Your task to perform on an android device: toggle wifi Image 0: 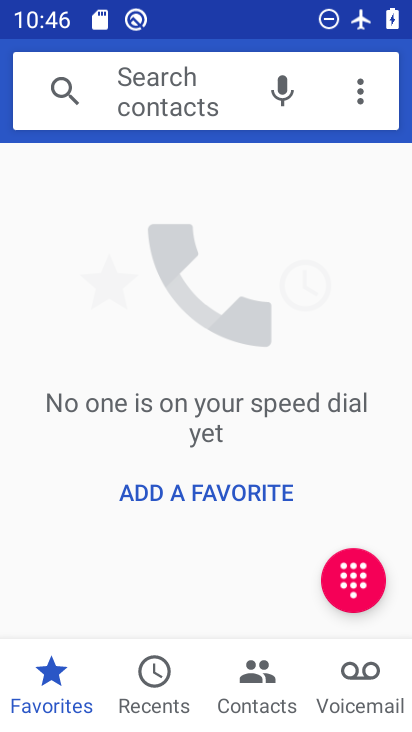
Step 0: press home button
Your task to perform on an android device: toggle wifi Image 1: 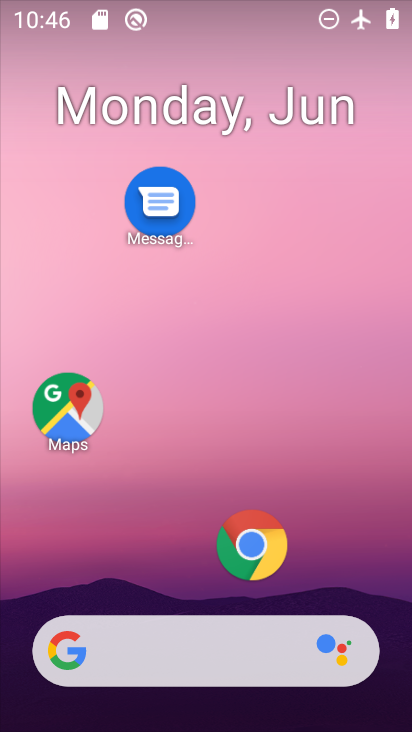
Step 1: drag from (154, 553) to (225, 203)
Your task to perform on an android device: toggle wifi Image 2: 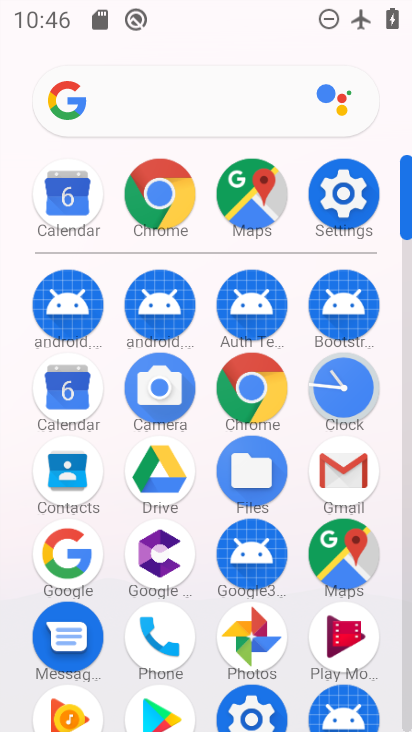
Step 2: click (351, 193)
Your task to perform on an android device: toggle wifi Image 3: 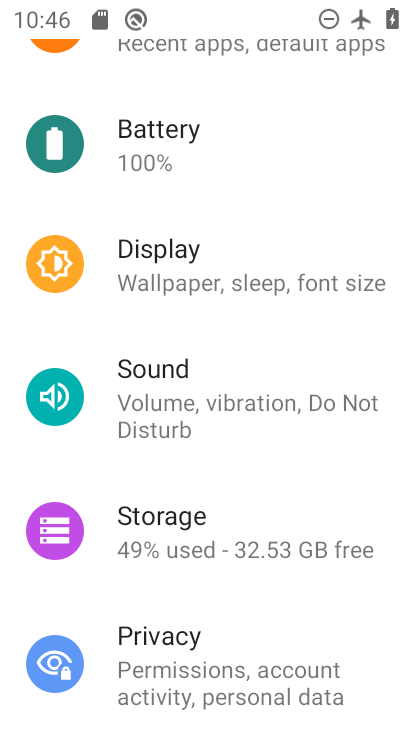
Step 3: drag from (336, 347) to (378, 627)
Your task to perform on an android device: toggle wifi Image 4: 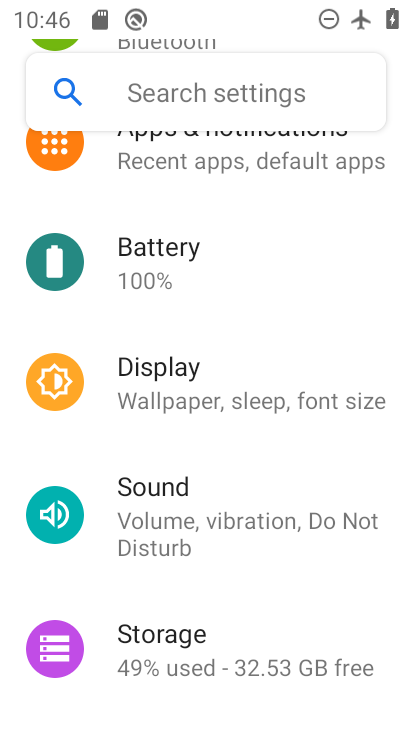
Step 4: drag from (223, 274) to (212, 668)
Your task to perform on an android device: toggle wifi Image 5: 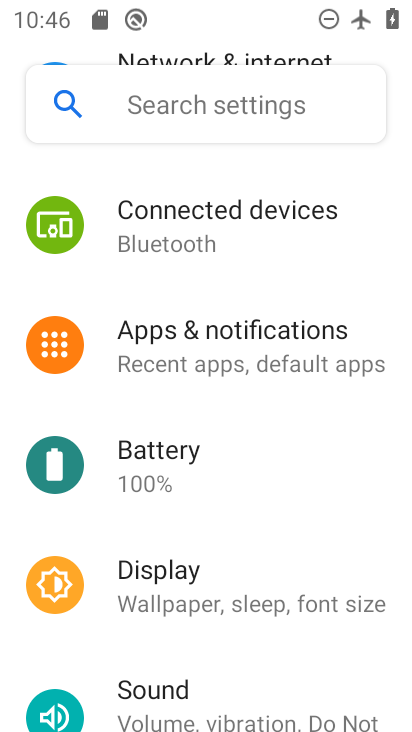
Step 5: drag from (209, 460) to (220, 725)
Your task to perform on an android device: toggle wifi Image 6: 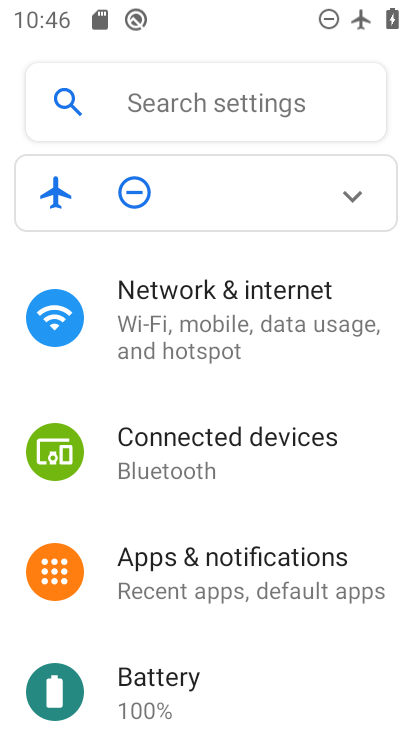
Step 6: click (201, 334)
Your task to perform on an android device: toggle wifi Image 7: 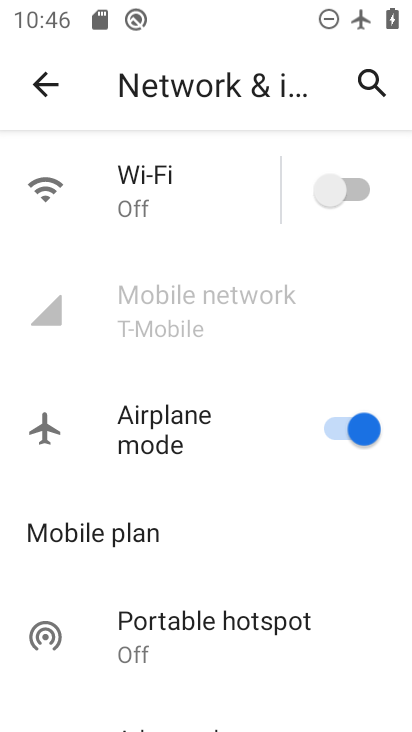
Step 7: click (340, 438)
Your task to perform on an android device: toggle wifi Image 8: 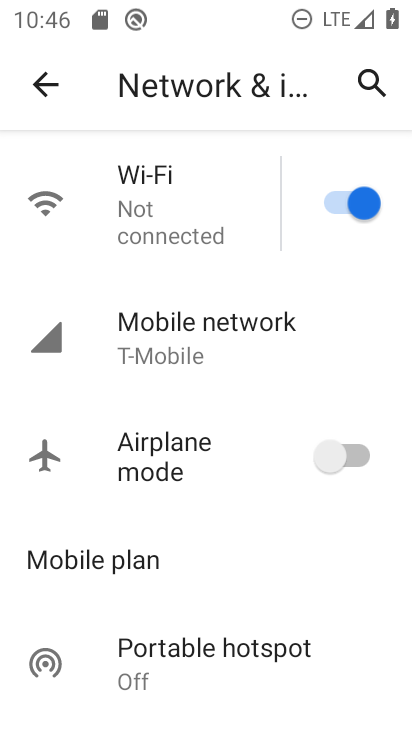
Step 8: task complete